Your task to perform on an android device: Open Google Chrome and open the bookmarks view Image 0: 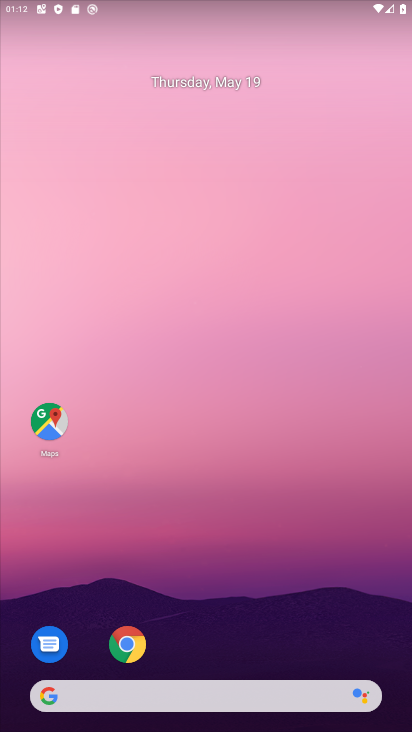
Step 0: drag from (353, 622) to (362, 176)
Your task to perform on an android device: Open Google Chrome and open the bookmarks view Image 1: 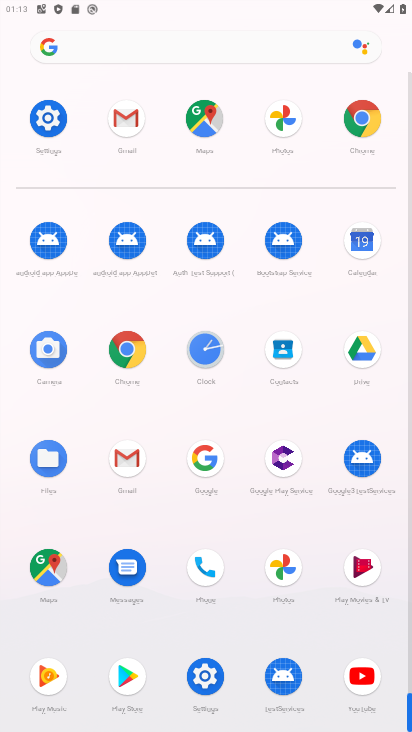
Step 1: click (139, 331)
Your task to perform on an android device: Open Google Chrome and open the bookmarks view Image 2: 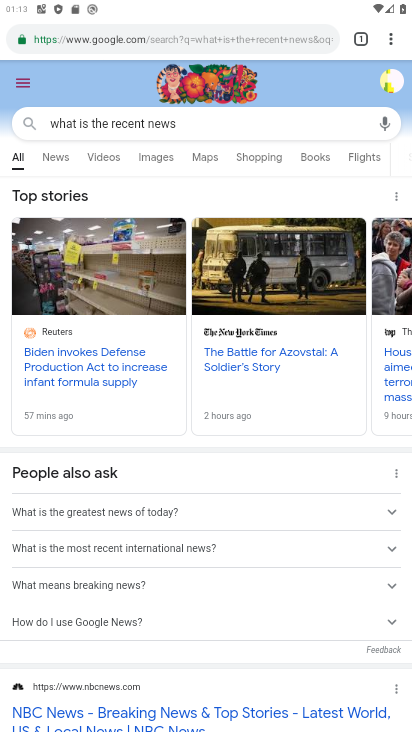
Step 2: task complete